Your task to perform on an android device: Open the web browser Image 0: 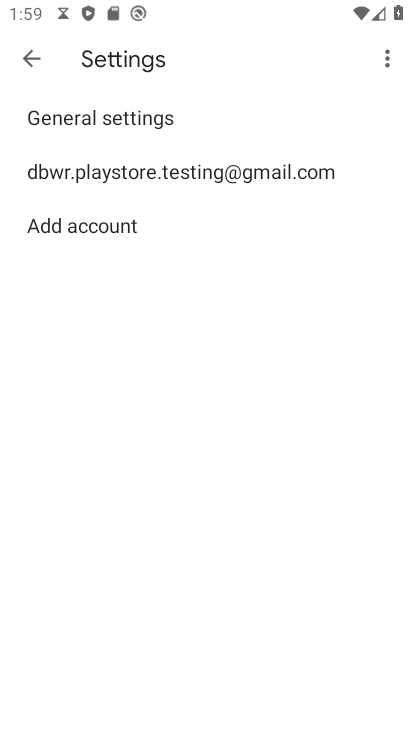
Step 0: press back button
Your task to perform on an android device: Open the web browser Image 1: 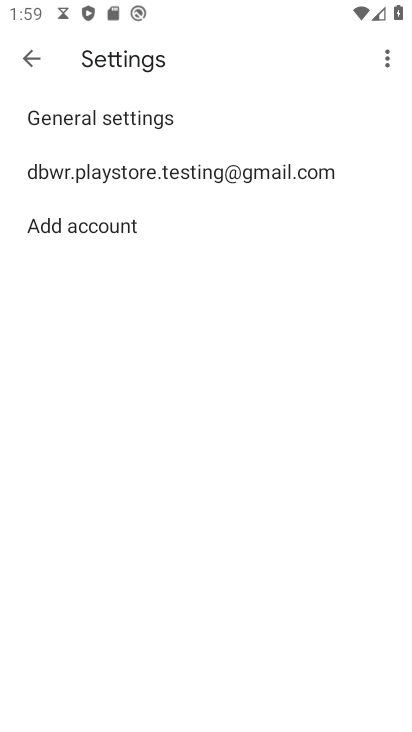
Step 1: press home button
Your task to perform on an android device: Open the web browser Image 2: 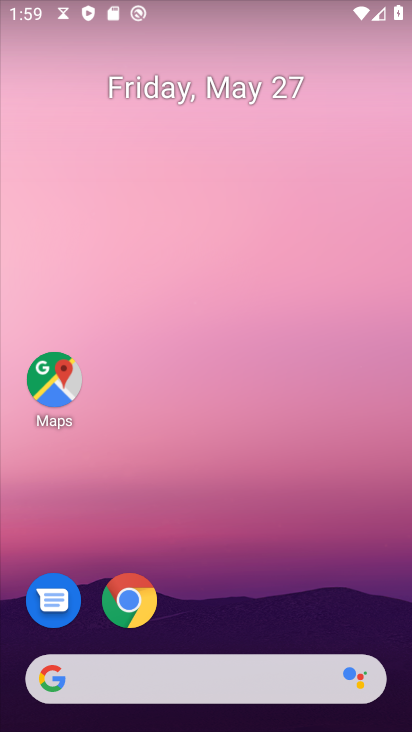
Step 2: drag from (222, 533) to (36, 130)
Your task to perform on an android device: Open the web browser Image 3: 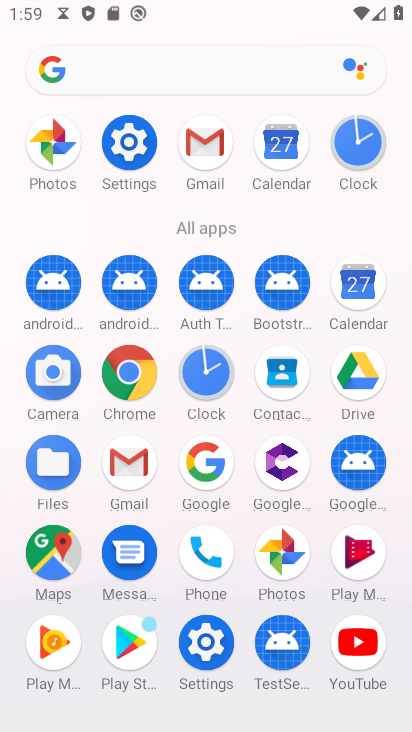
Step 3: click (124, 368)
Your task to perform on an android device: Open the web browser Image 4: 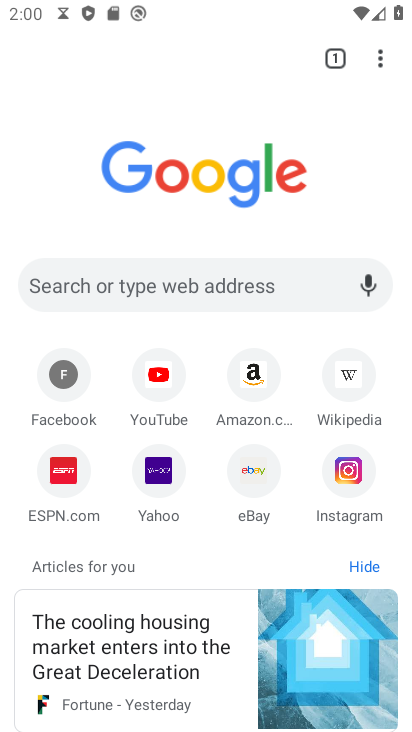
Step 4: task complete